Your task to perform on an android device: Open ESPN.com Image 0: 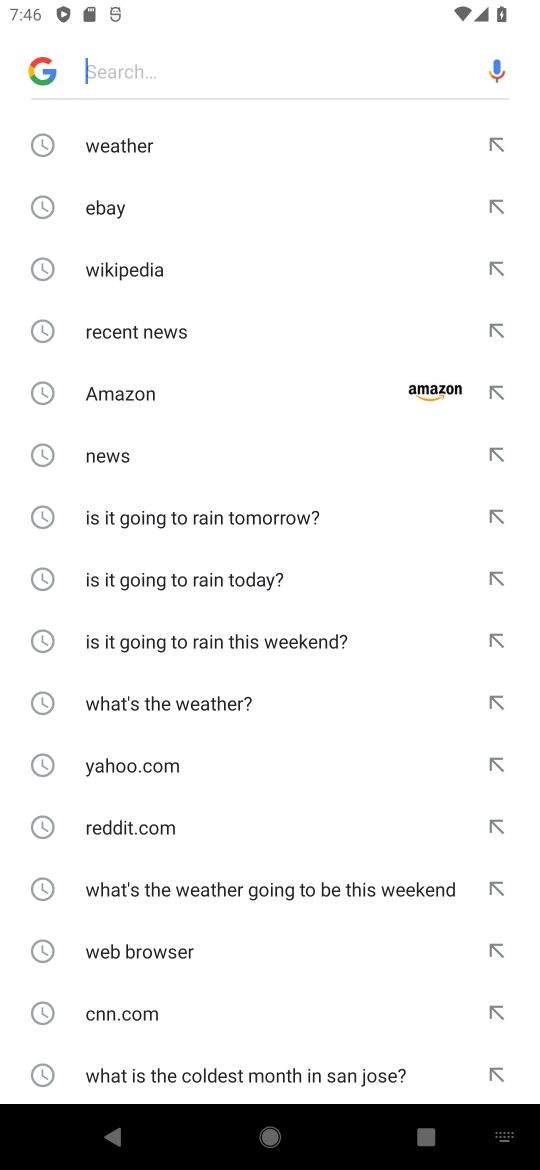
Step 0: type "espn.com"
Your task to perform on an android device: Open ESPN.com Image 1: 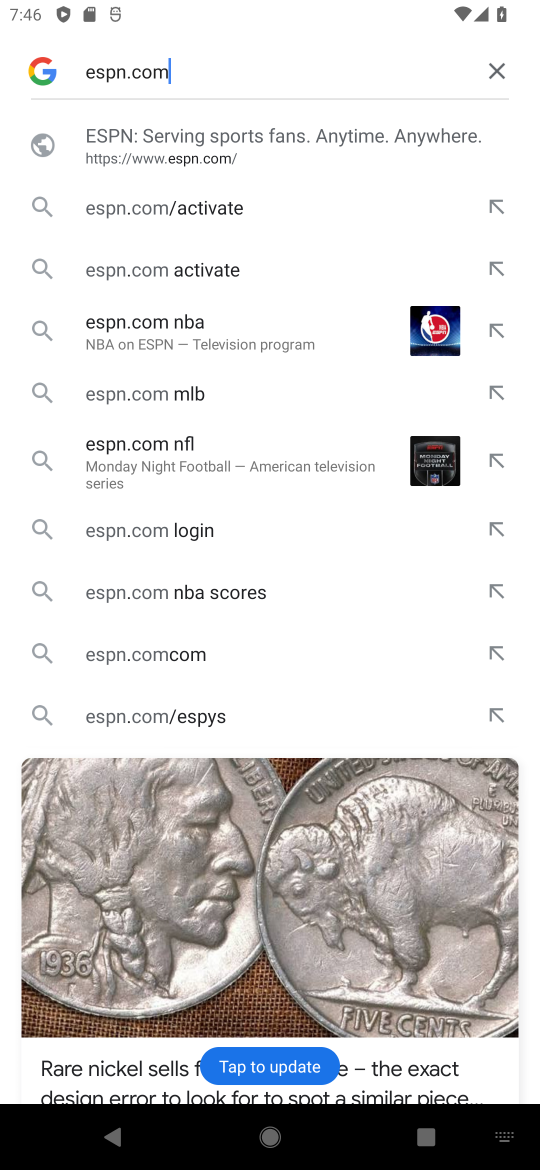
Step 1: click (148, 149)
Your task to perform on an android device: Open ESPN.com Image 2: 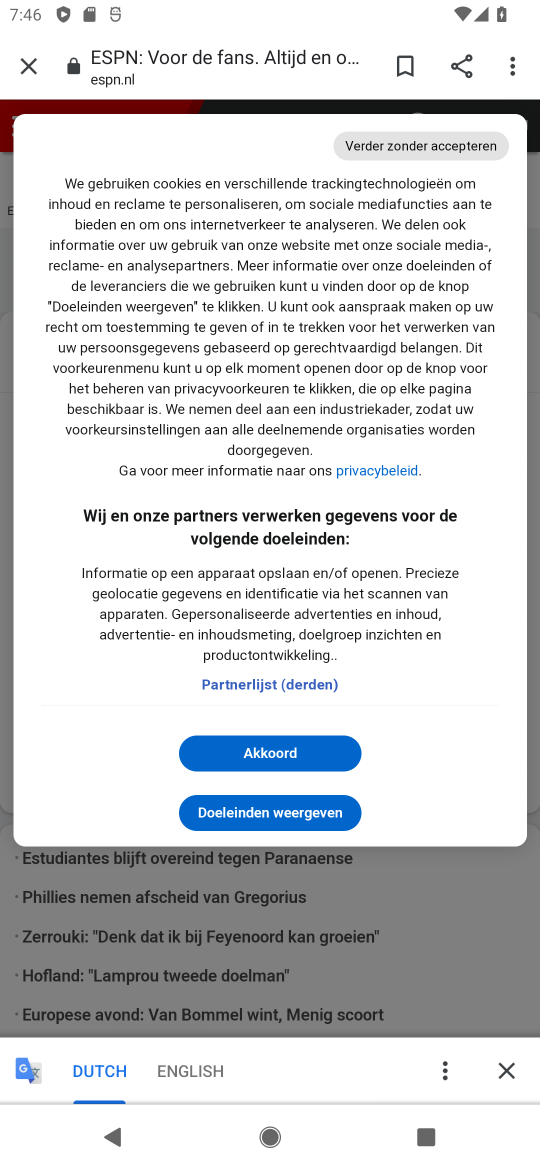
Step 2: task complete